Your task to perform on an android device: find which apps use the phone's location Image 0: 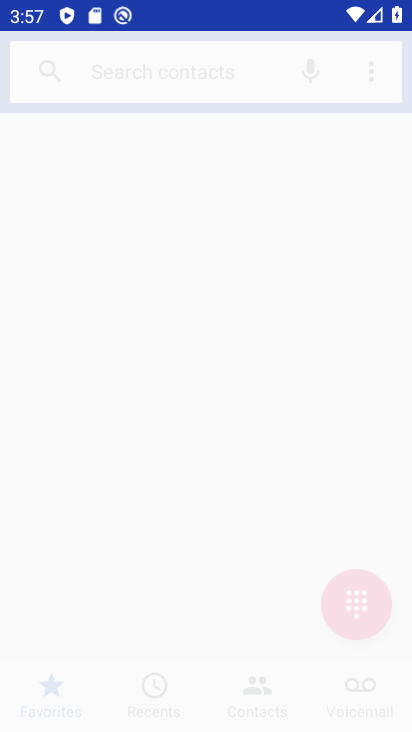
Step 0: drag from (321, 557) to (270, 232)
Your task to perform on an android device: find which apps use the phone's location Image 1: 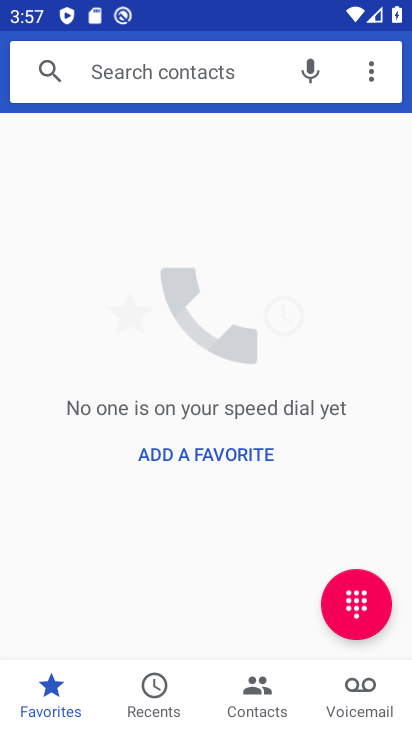
Step 1: press home button
Your task to perform on an android device: find which apps use the phone's location Image 2: 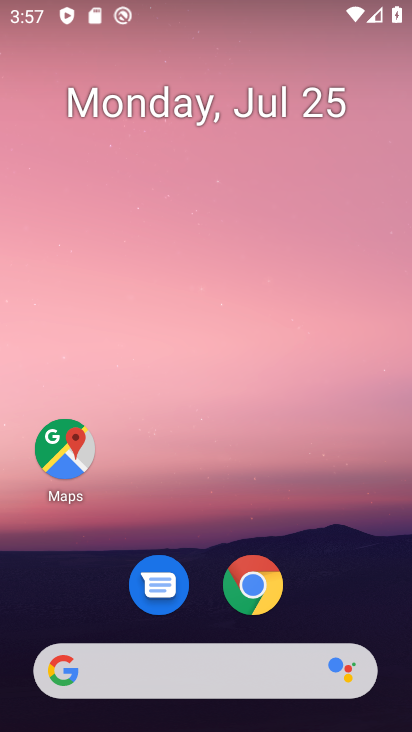
Step 2: drag from (333, 569) to (337, 11)
Your task to perform on an android device: find which apps use the phone's location Image 3: 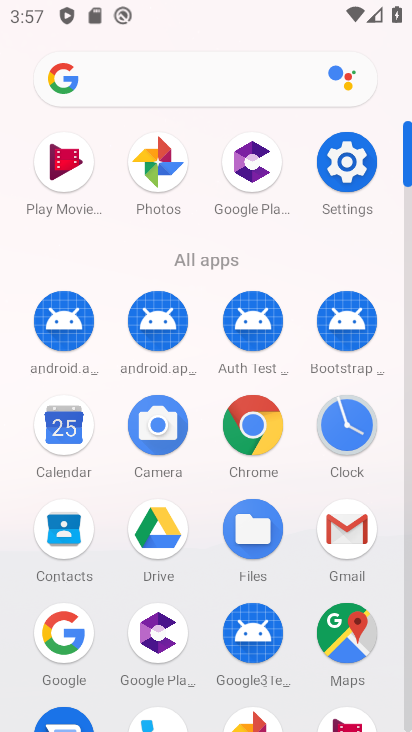
Step 3: click (343, 172)
Your task to perform on an android device: find which apps use the phone's location Image 4: 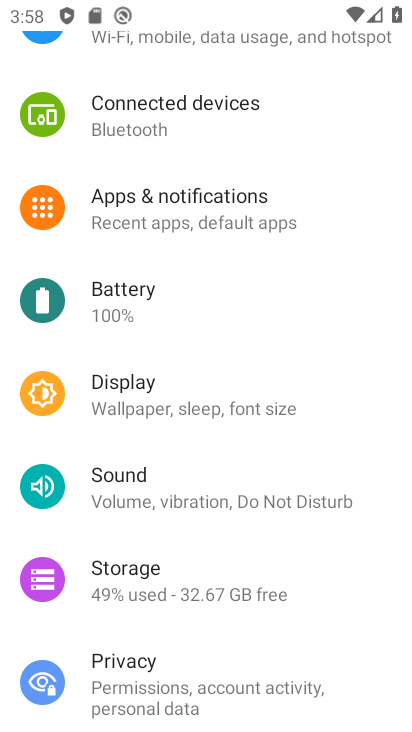
Step 4: drag from (260, 635) to (312, 124)
Your task to perform on an android device: find which apps use the phone's location Image 5: 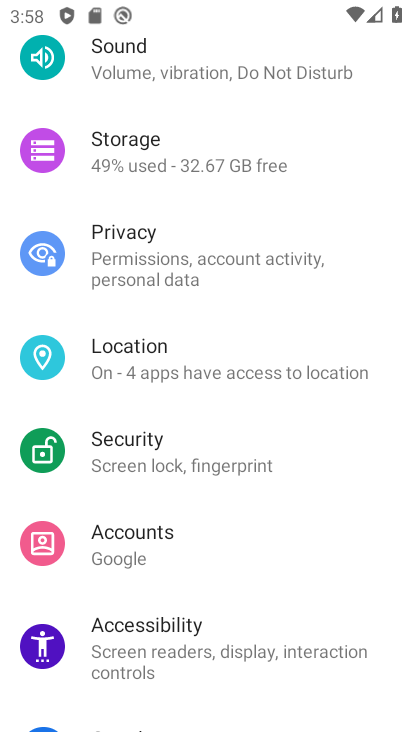
Step 5: click (227, 365)
Your task to perform on an android device: find which apps use the phone's location Image 6: 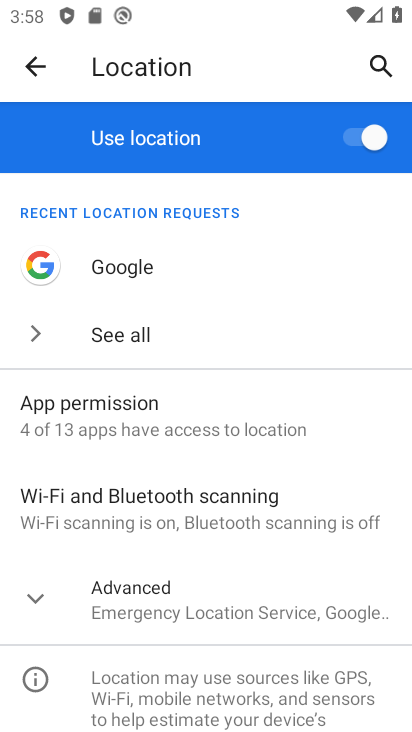
Step 6: click (112, 411)
Your task to perform on an android device: find which apps use the phone's location Image 7: 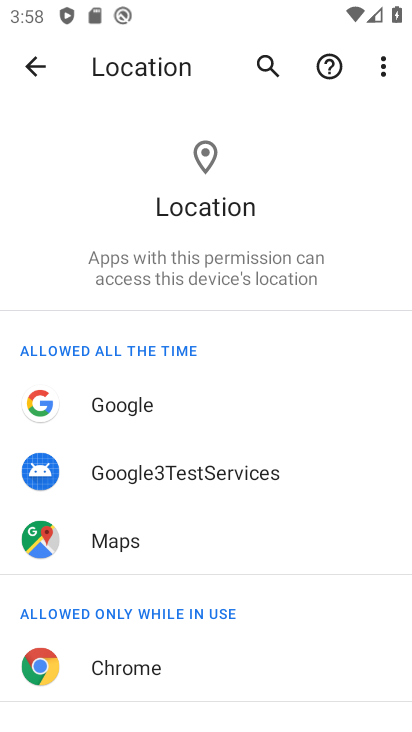
Step 7: task complete